Your task to perform on an android device: Open the web browser Image 0: 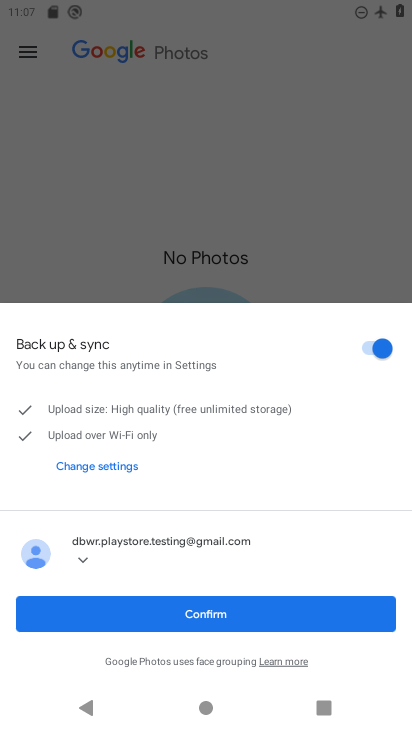
Step 0: press home button
Your task to perform on an android device: Open the web browser Image 1: 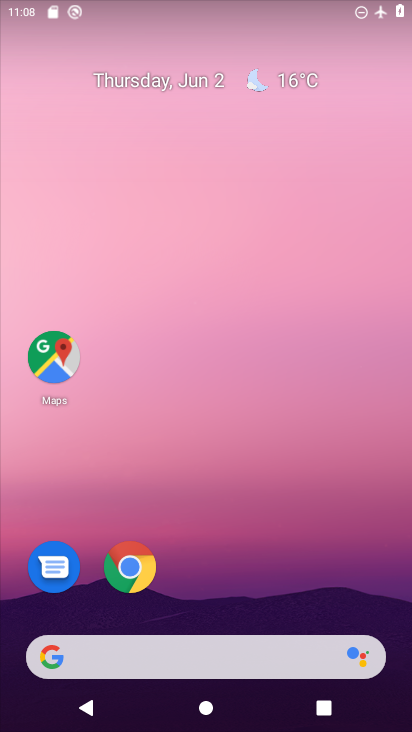
Step 1: click (144, 565)
Your task to perform on an android device: Open the web browser Image 2: 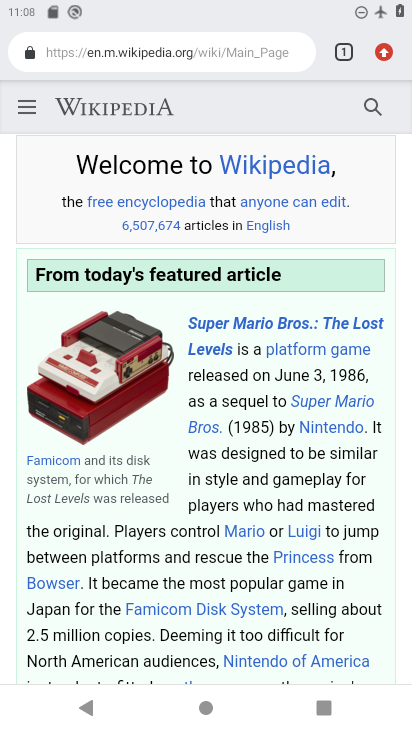
Step 2: task complete